Your task to perform on an android device: Open settings Image 0: 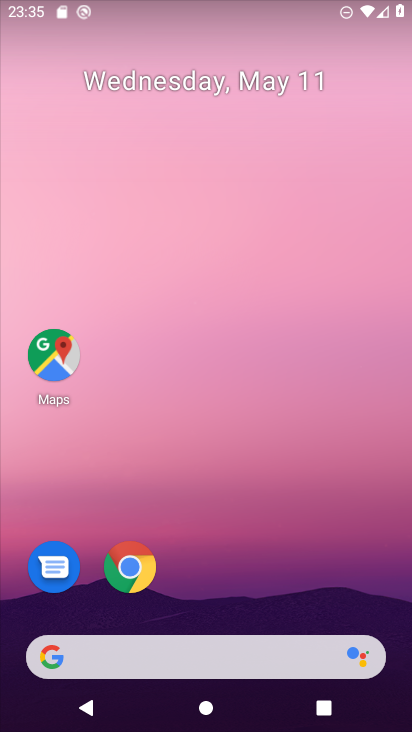
Step 0: drag from (262, 706) to (324, 0)
Your task to perform on an android device: Open settings Image 1: 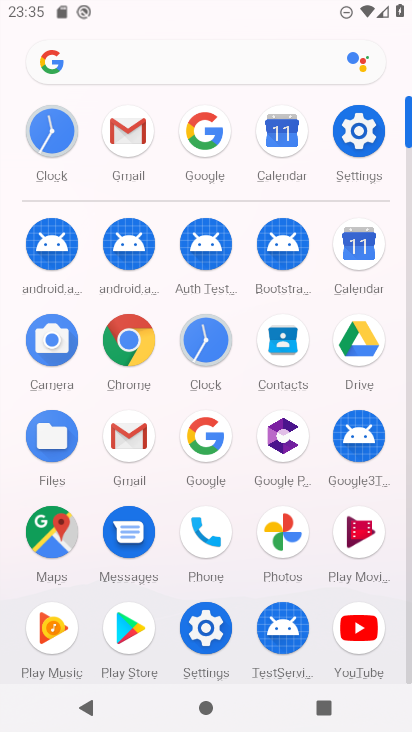
Step 1: click (370, 122)
Your task to perform on an android device: Open settings Image 2: 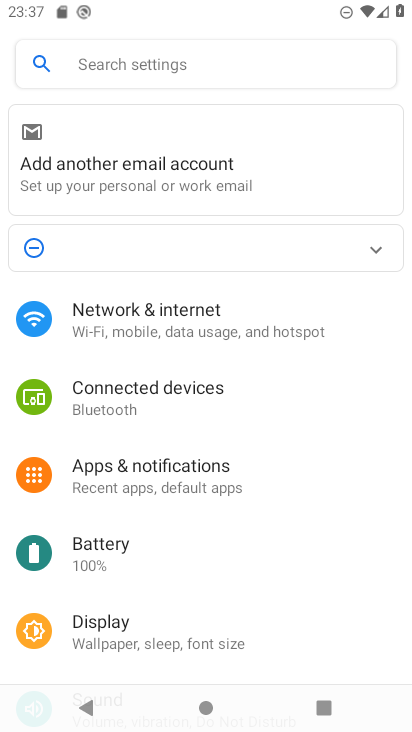
Step 2: task complete